Your task to perform on an android device: change the clock style Image 0: 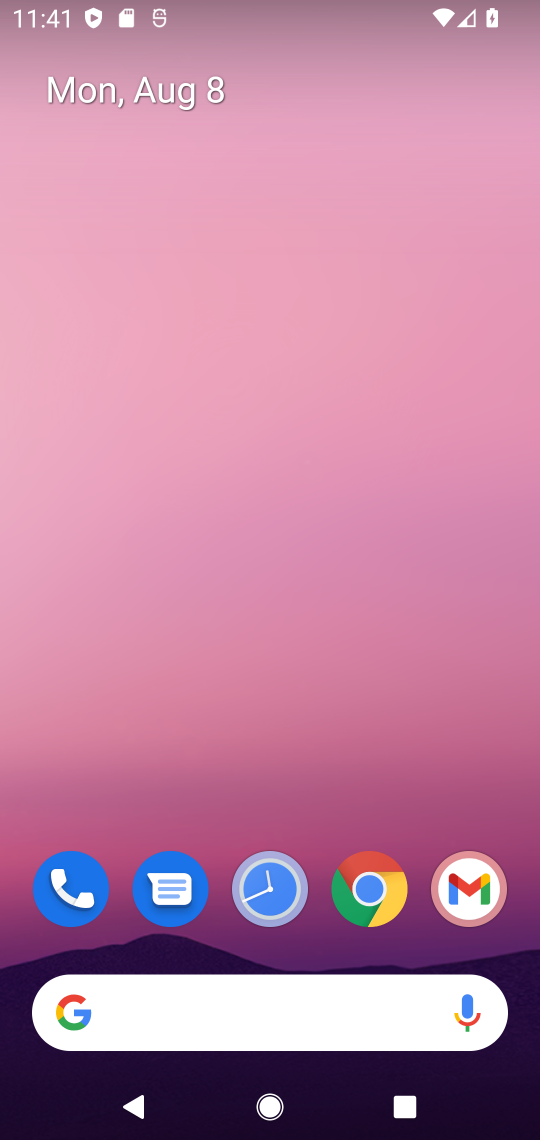
Step 0: click (276, 870)
Your task to perform on an android device: change the clock style Image 1: 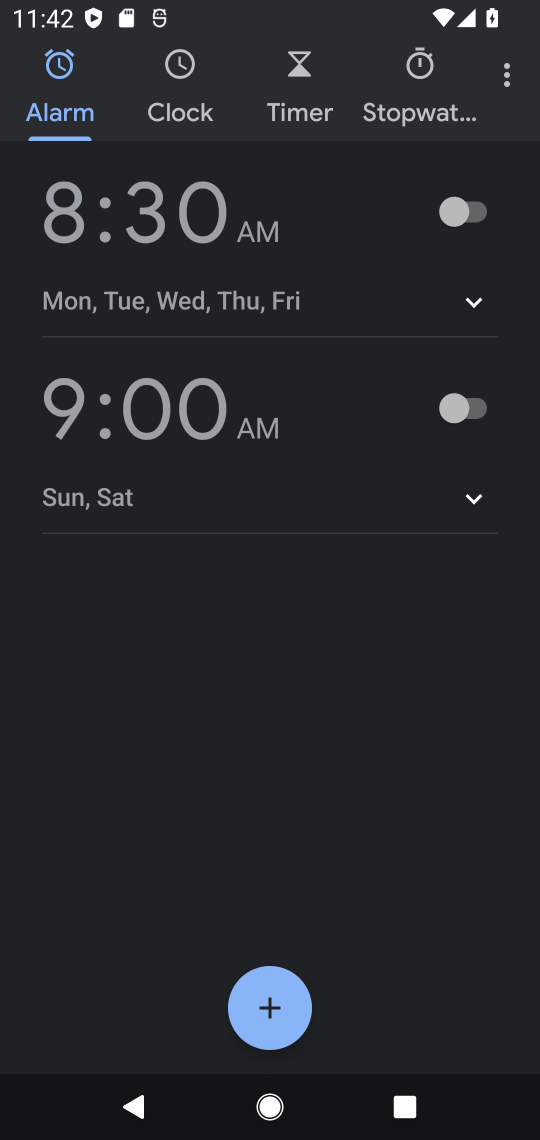
Step 1: click (514, 101)
Your task to perform on an android device: change the clock style Image 2: 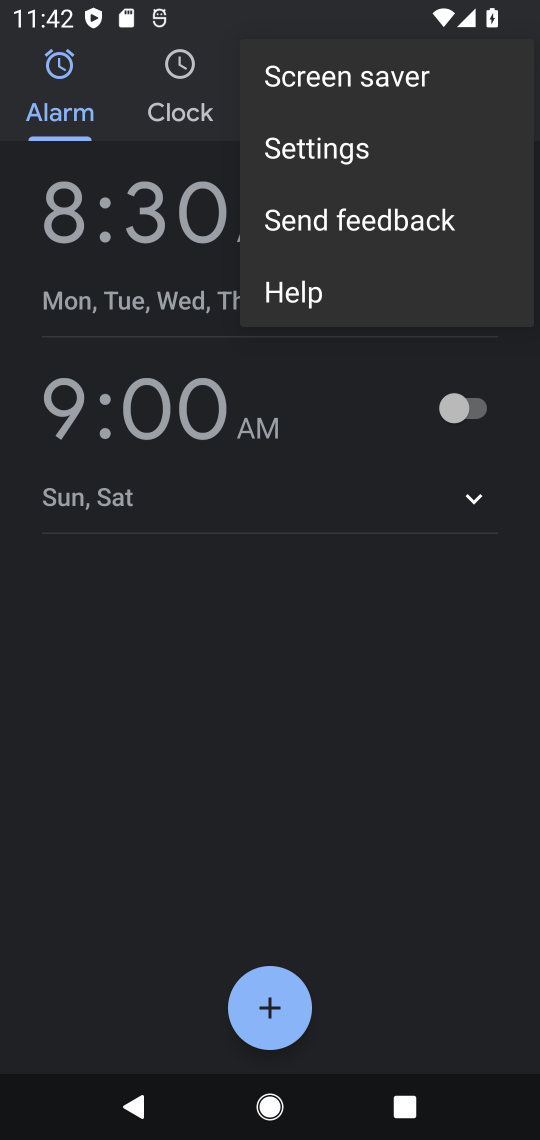
Step 2: click (329, 147)
Your task to perform on an android device: change the clock style Image 3: 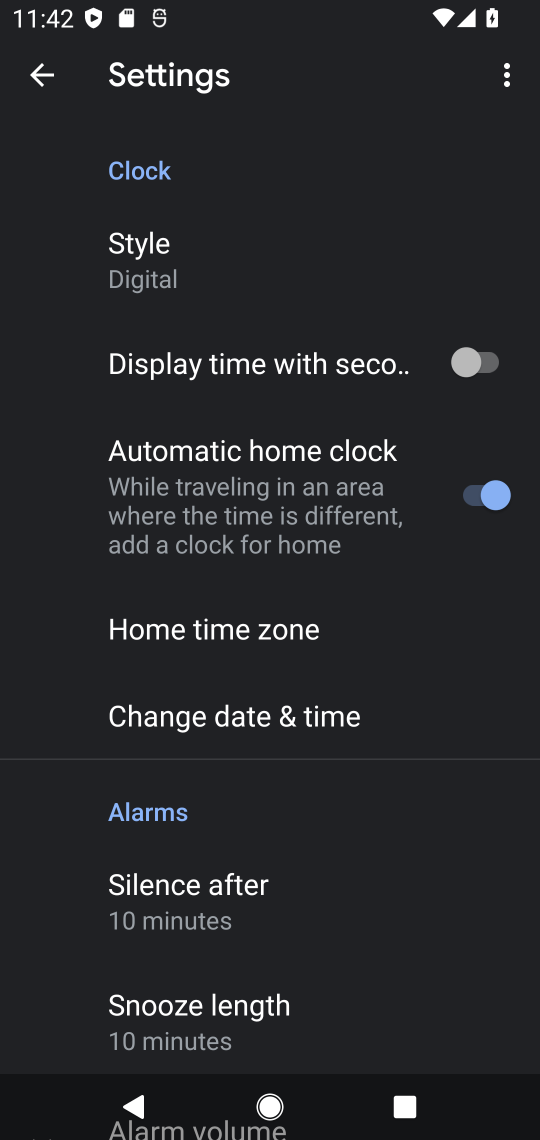
Step 3: click (266, 244)
Your task to perform on an android device: change the clock style Image 4: 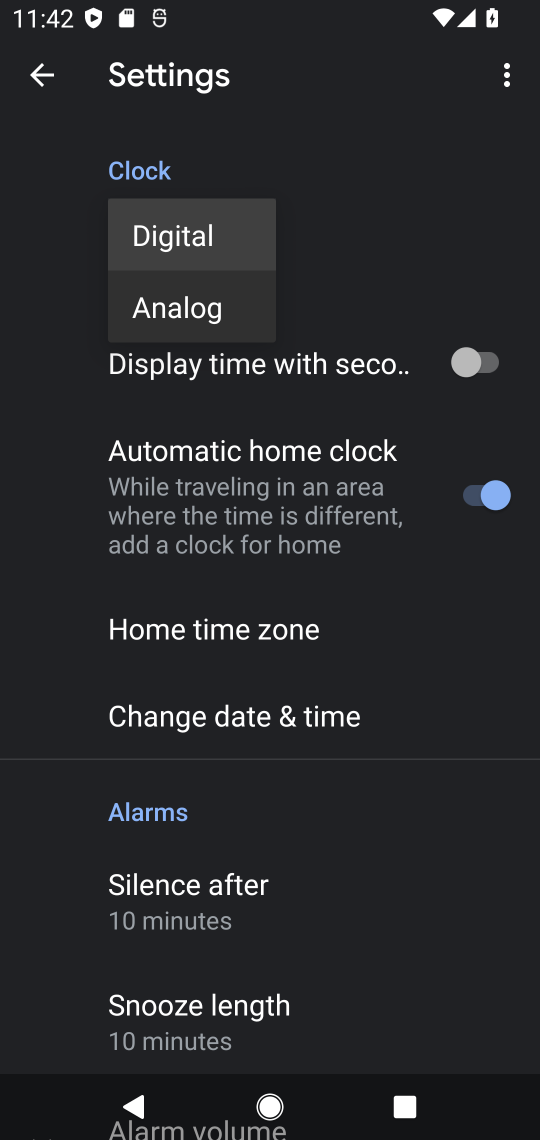
Step 4: click (214, 302)
Your task to perform on an android device: change the clock style Image 5: 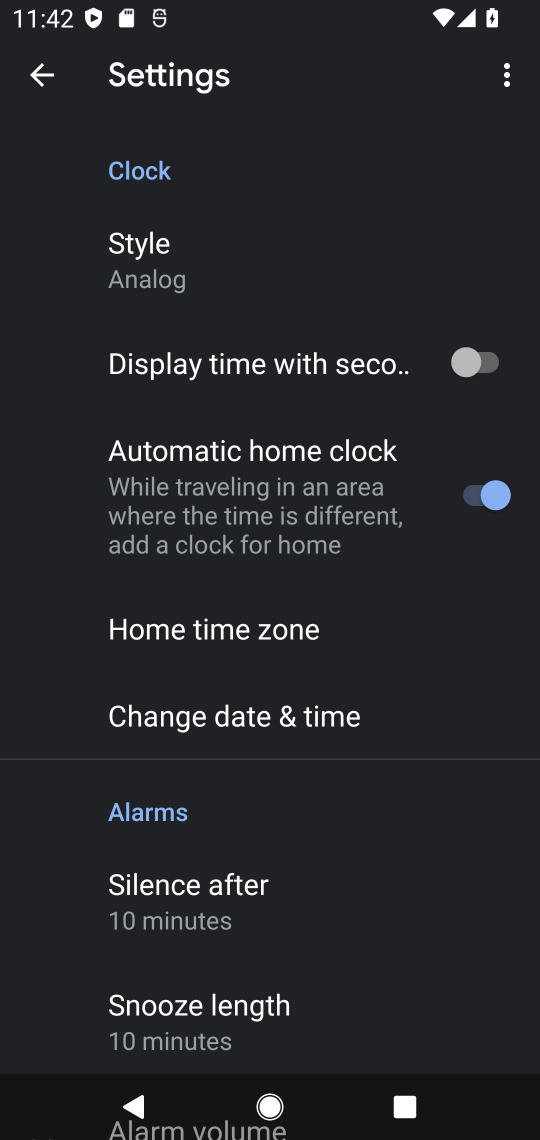
Step 5: task complete